Your task to perform on an android device: open chrome and create a bookmark for the current page Image 0: 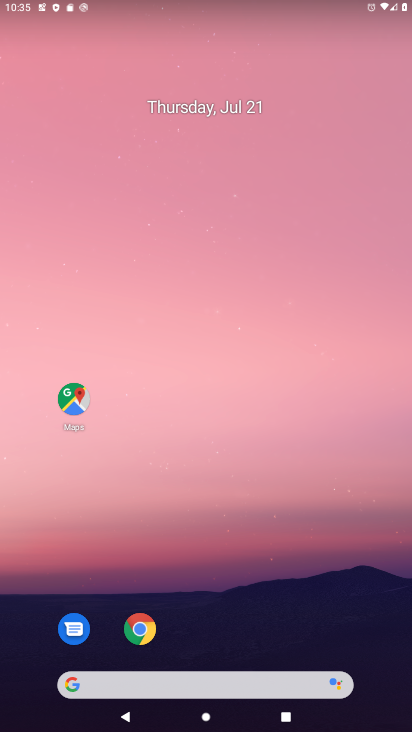
Step 0: press home button
Your task to perform on an android device: open chrome and create a bookmark for the current page Image 1: 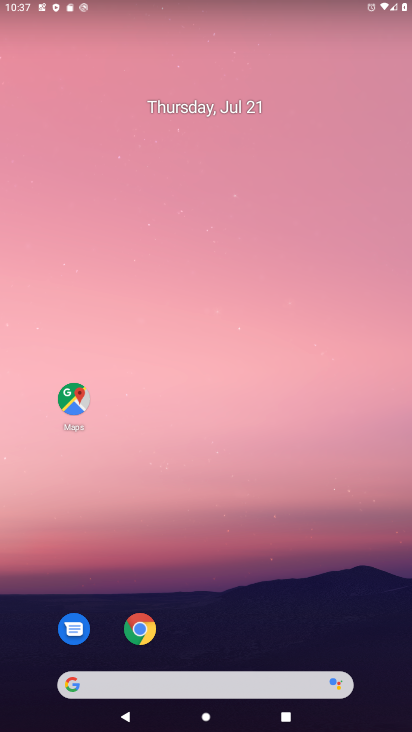
Step 1: click (140, 616)
Your task to perform on an android device: open chrome and create a bookmark for the current page Image 2: 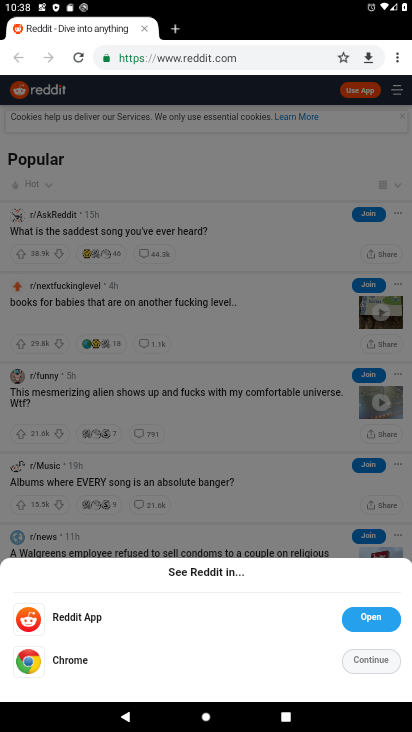
Step 2: click (340, 55)
Your task to perform on an android device: open chrome and create a bookmark for the current page Image 3: 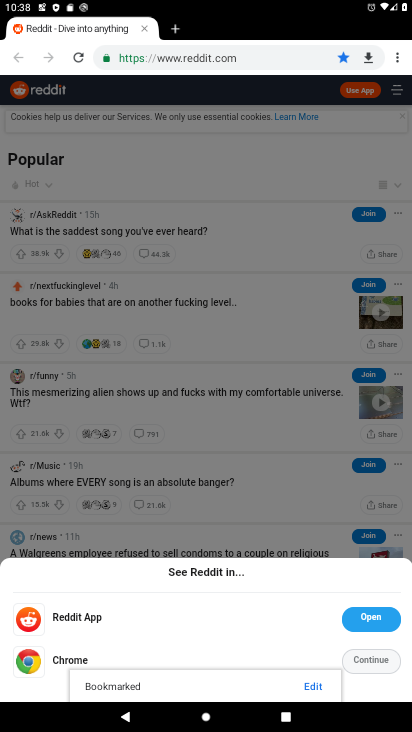
Step 3: task complete